Your task to perform on an android device: check out phone information Image 0: 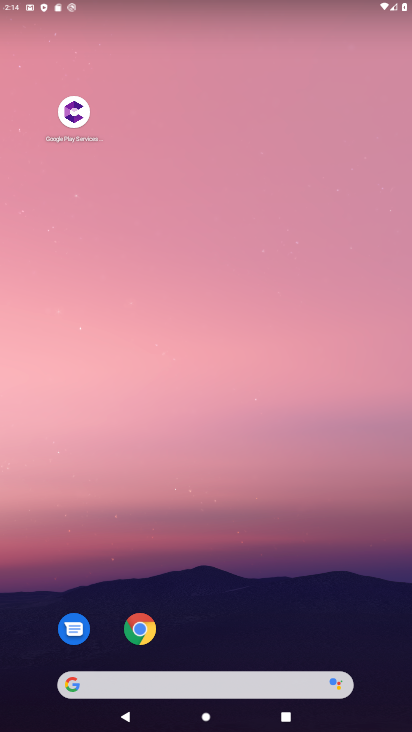
Step 0: drag from (196, 681) to (239, 89)
Your task to perform on an android device: check out phone information Image 1: 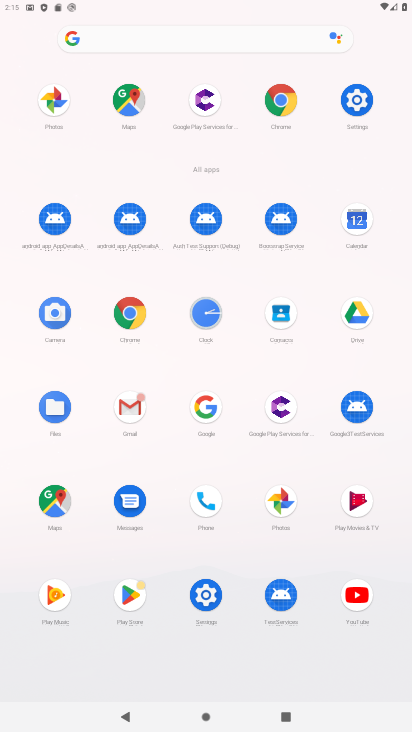
Step 1: click (356, 100)
Your task to perform on an android device: check out phone information Image 2: 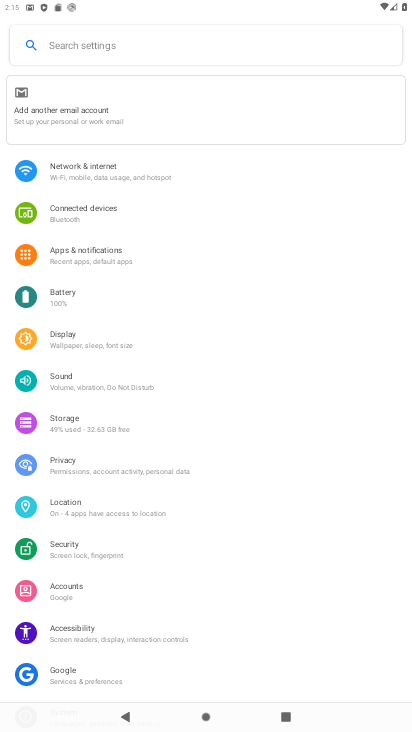
Step 2: drag from (111, 512) to (155, 432)
Your task to perform on an android device: check out phone information Image 3: 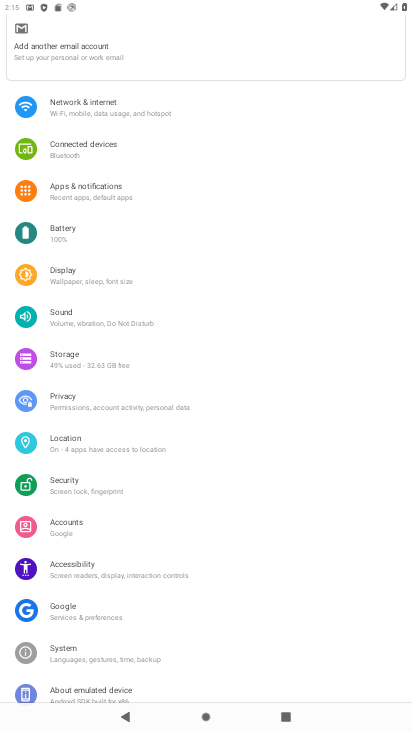
Step 3: drag from (106, 587) to (195, 484)
Your task to perform on an android device: check out phone information Image 4: 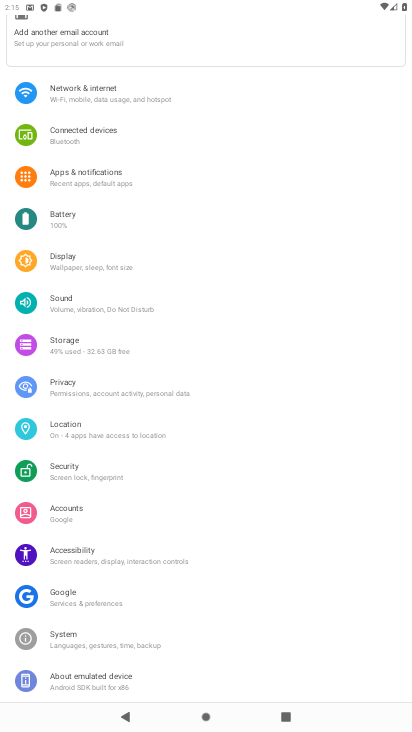
Step 4: click (110, 677)
Your task to perform on an android device: check out phone information Image 5: 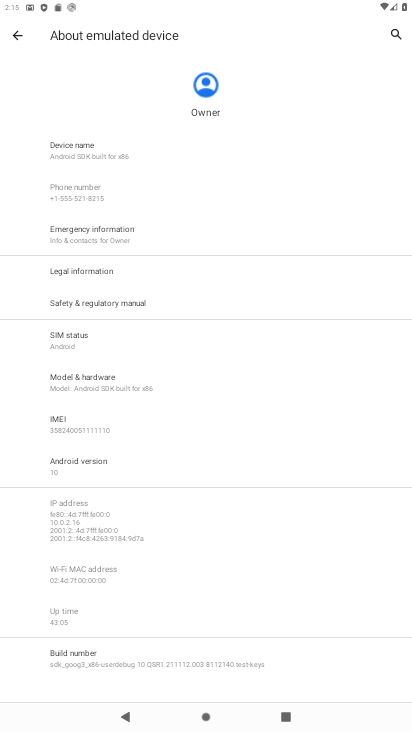
Step 5: task complete